Your task to perform on an android device: Open ESPN.com Image 0: 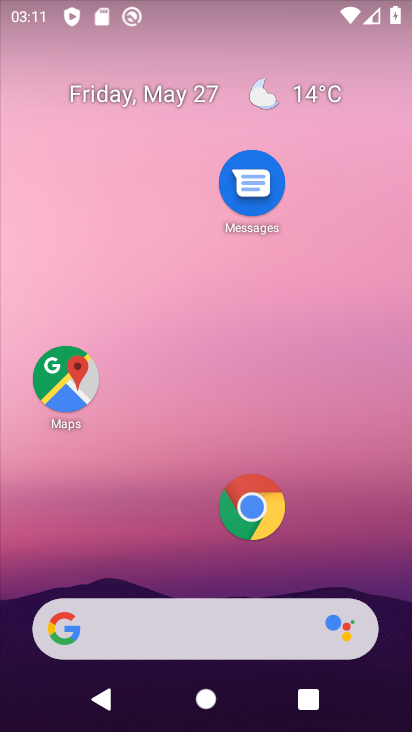
Step 0: click (263, 505)
Your task to perform on an android device: Open ESPN.com Image 1: 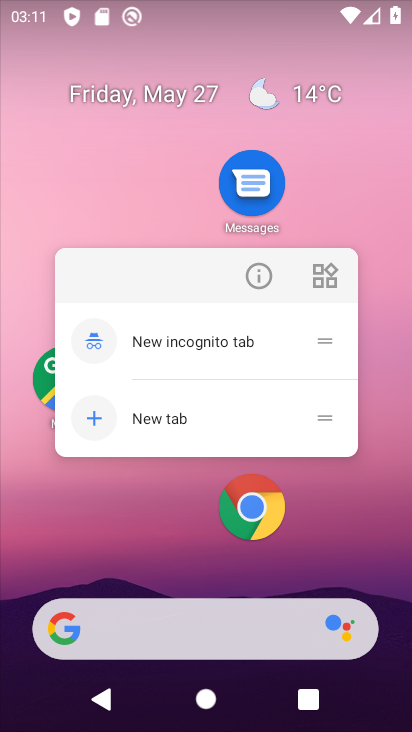
Step 1: click (259, 285)
Your task to perform on an android device: Open ESPN.com Image 2: 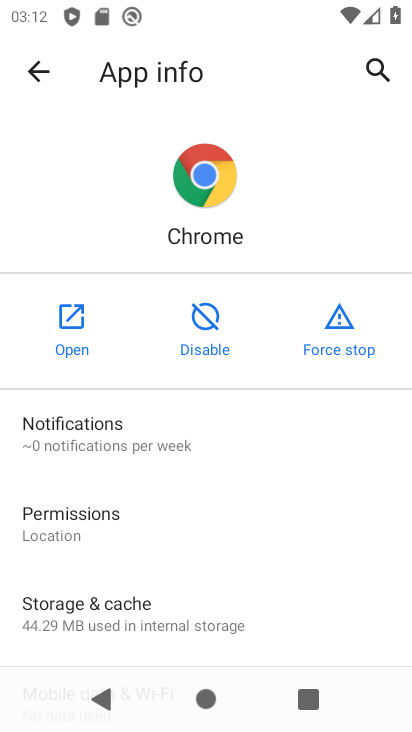
Step 2: click (48, 322)
Your task to perform on an android device: Open ESPN.com Image 3: 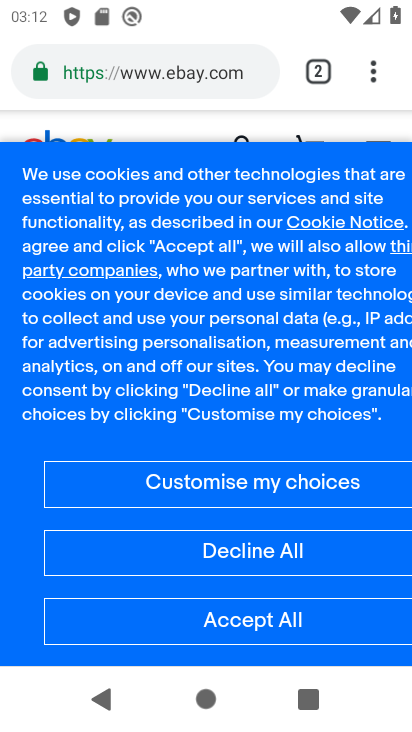
Step 3: click (369, 84)
Your task to perform on an android device: Open ESPN.com Image 4: 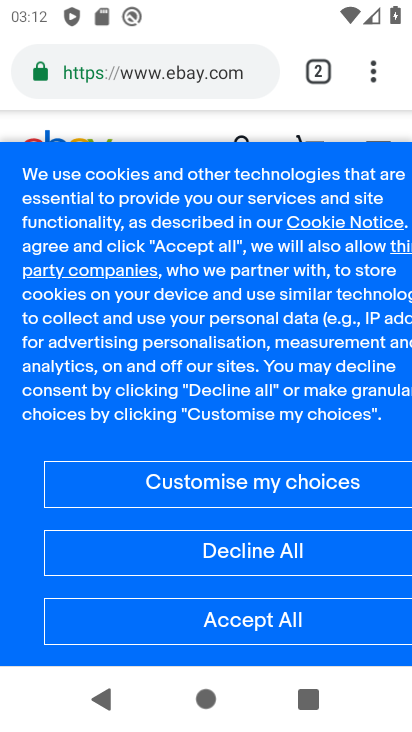
Step 4: drag from (367, 77) to (79, 85)
Your task to perform on an android device: Open ESPN.com Image 5: 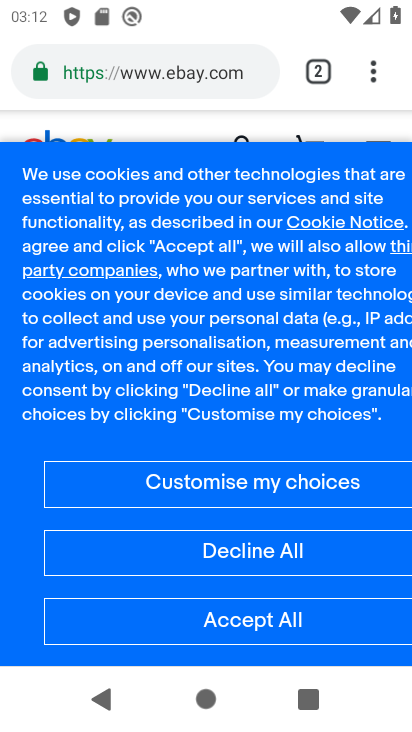
Step 5: click (317, 66)
Your task to perform on an android device: Open ESPN.com Image 6: 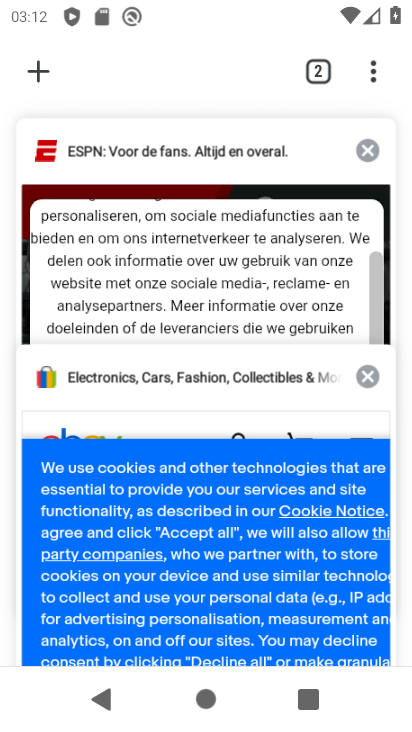
Step 6: click (53, 61)
Your task to perform on an android device: Open ESPN.com Image 7: 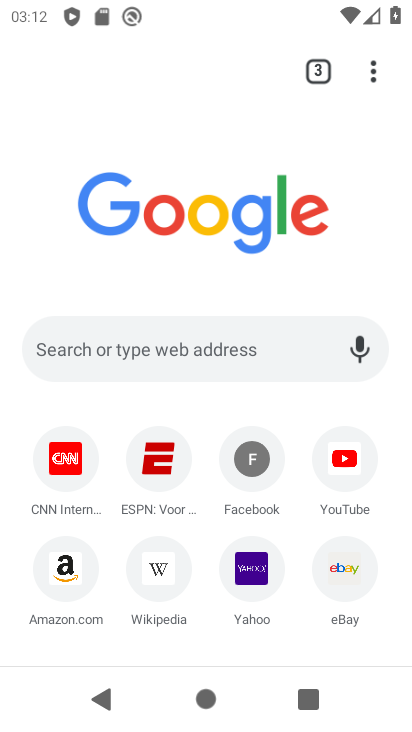
Step 7: drag from (199, 532) to (275, 283)
Your task to perform on an android device: Open ESPN.com Image 8: 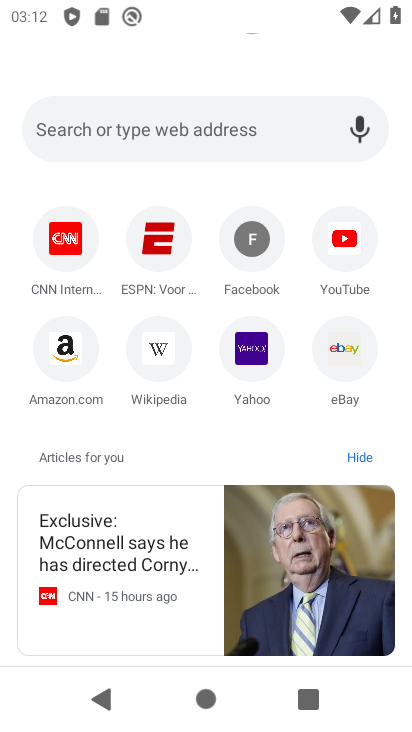
Step 8: click (147, 240)
Your task to perform on an android device: Open ESPN.com Image 9: 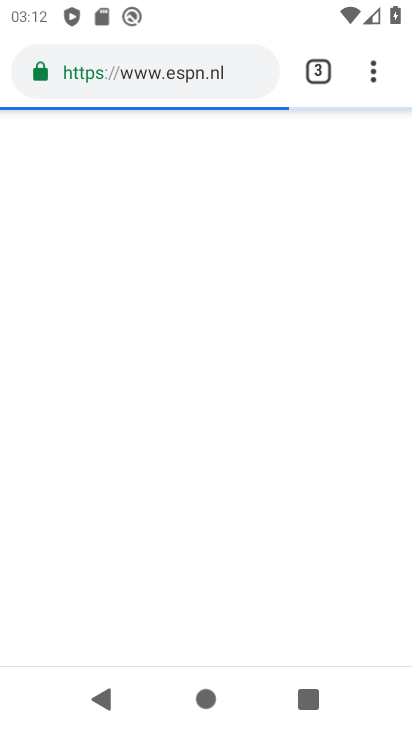
Step 9: task complete